Your task to perform on an android device: change your default location settings in chrome Image 0: 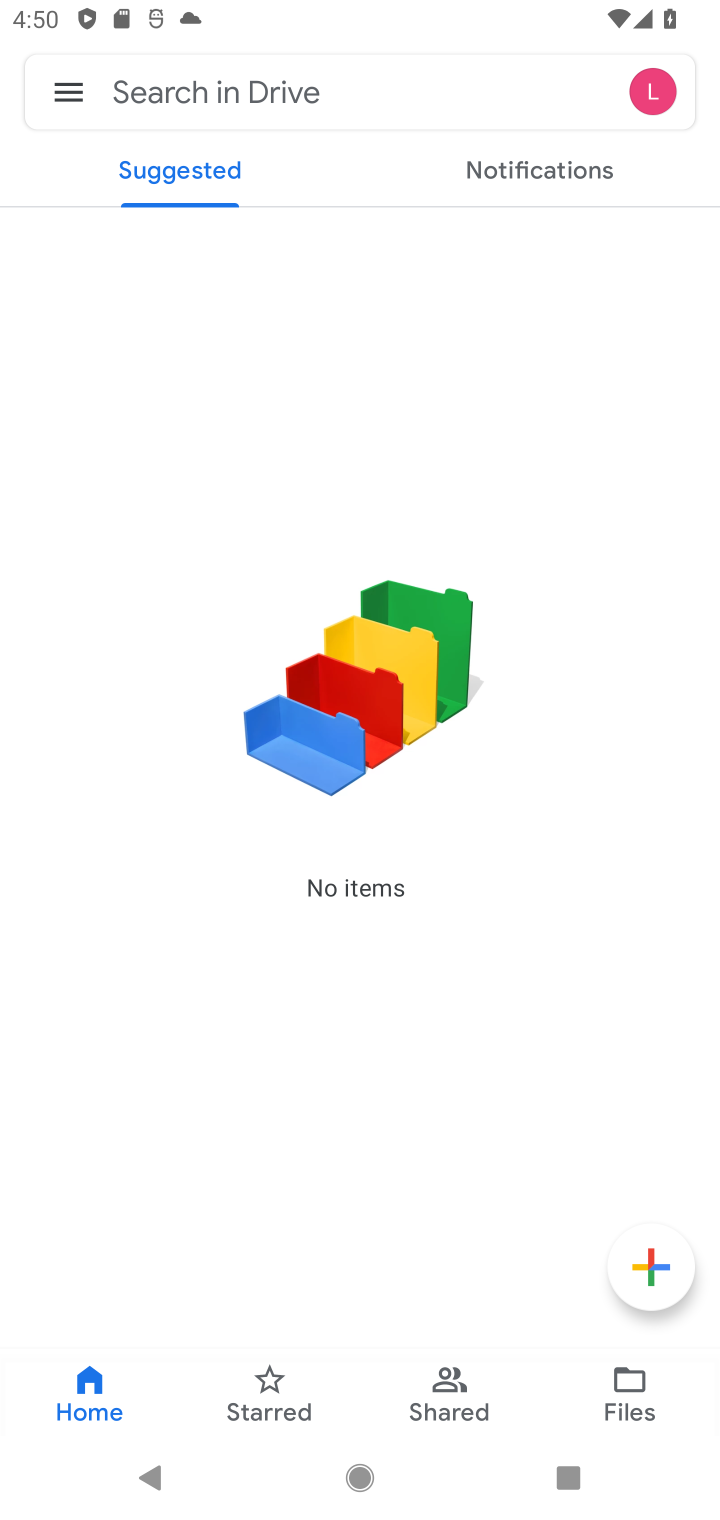
Step 0: press back button
Your task to perform on an android device: change your default location settings in chrome Image 1: 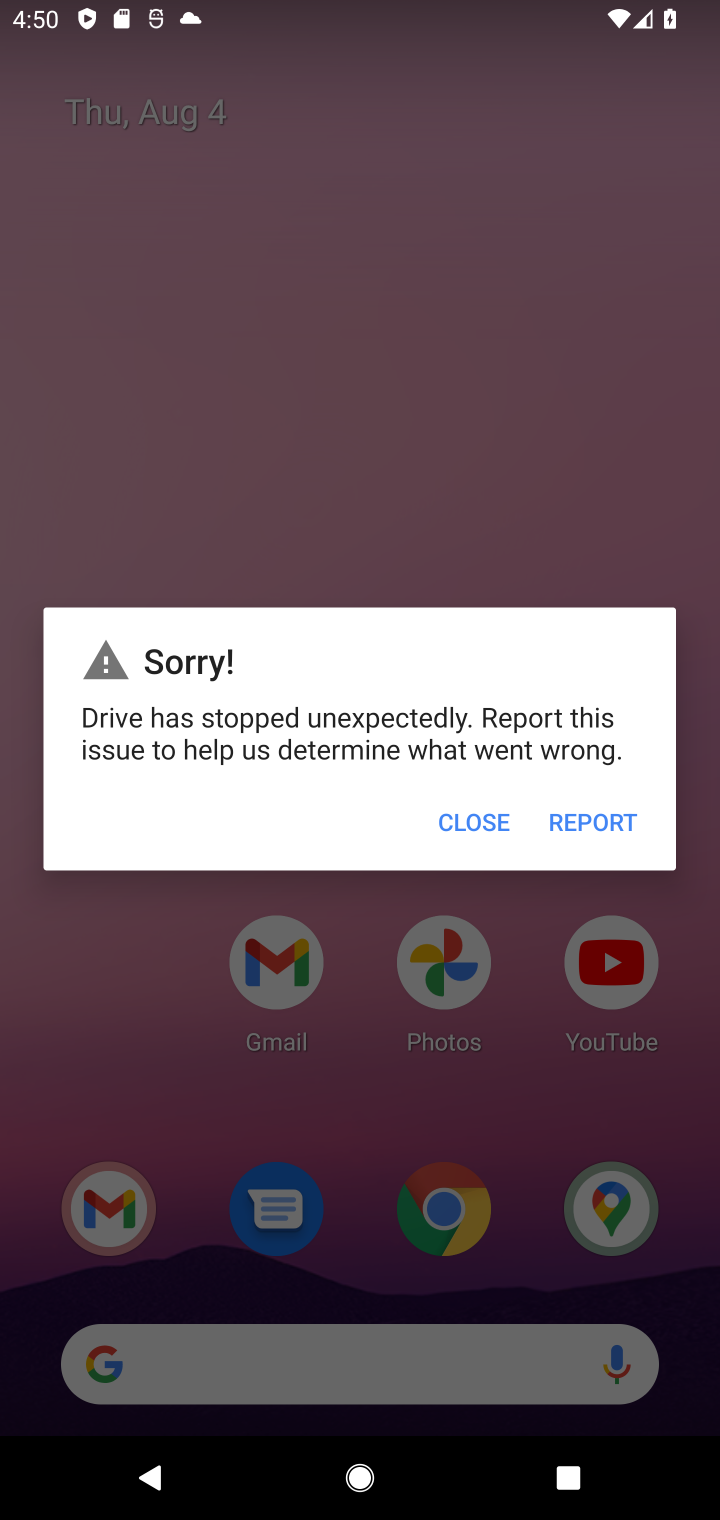
Step 1: press home button
Your task to perform on an android device: change your default location settings in chrome Image 2: 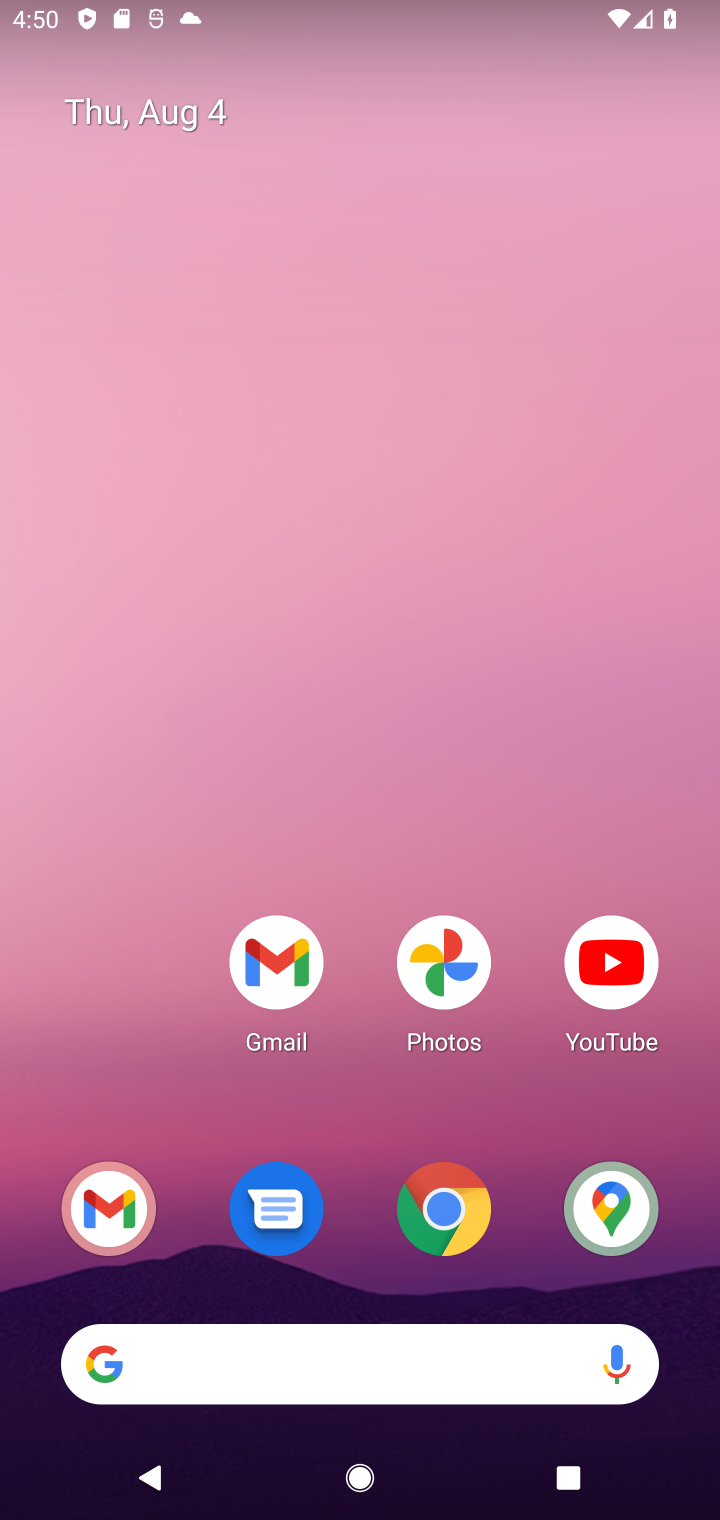
Step 2: click (442, 1209)
Your task to perform on an android device: change your default location settings in chrome Image 3: 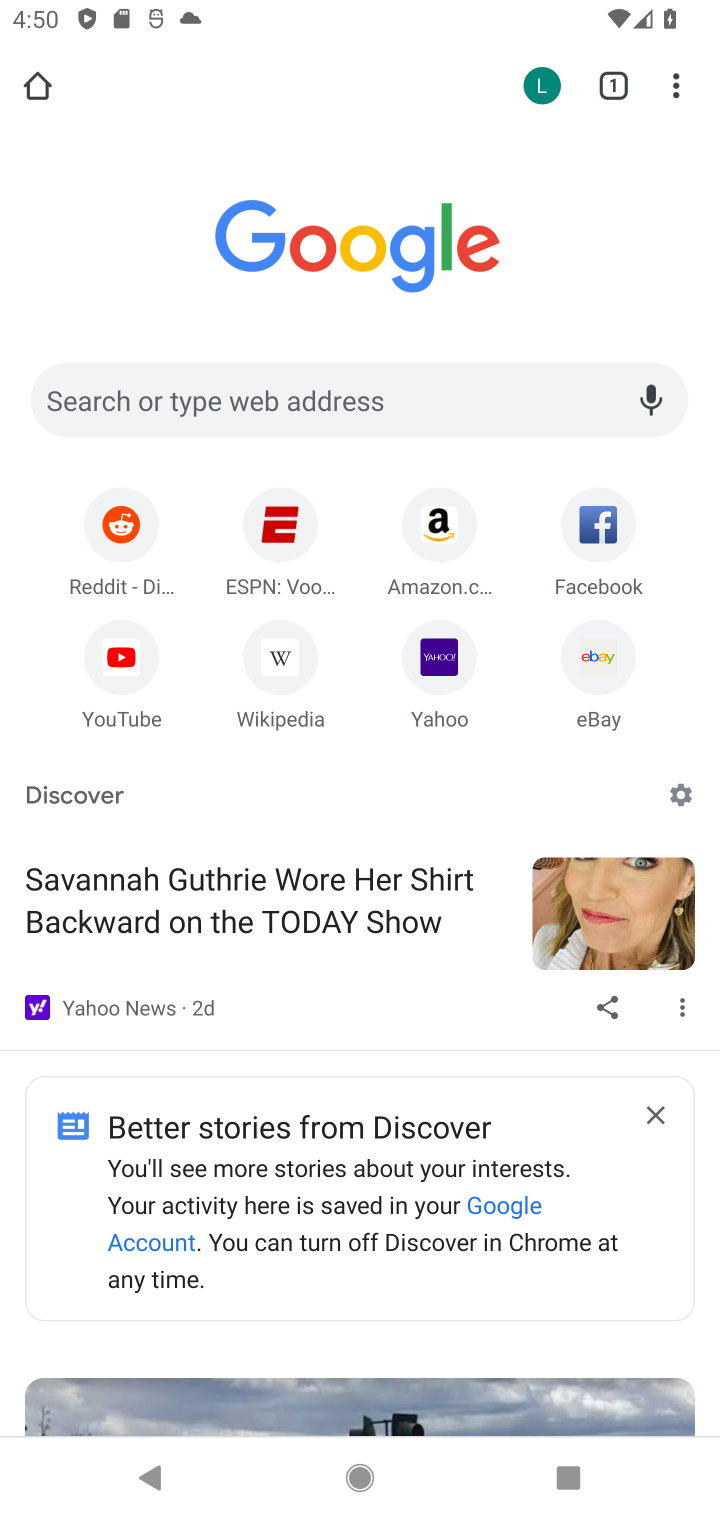
Step 3: click (679, 90)
Your task to perform on an android device: change your default location settings in chrome Image 4: 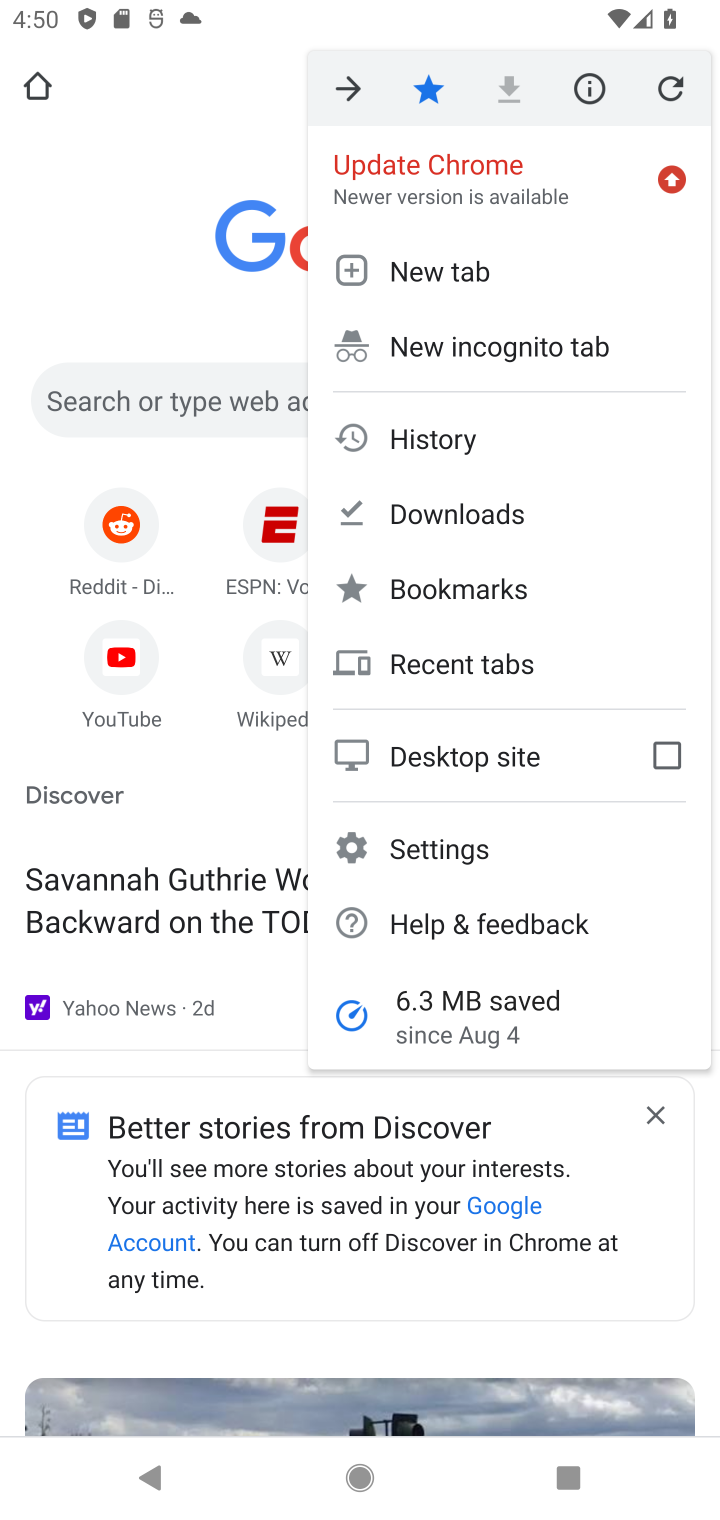
Step 4: click (484, 852)
Your task to perform on an android device: change your default location settings in chrome Image 5: 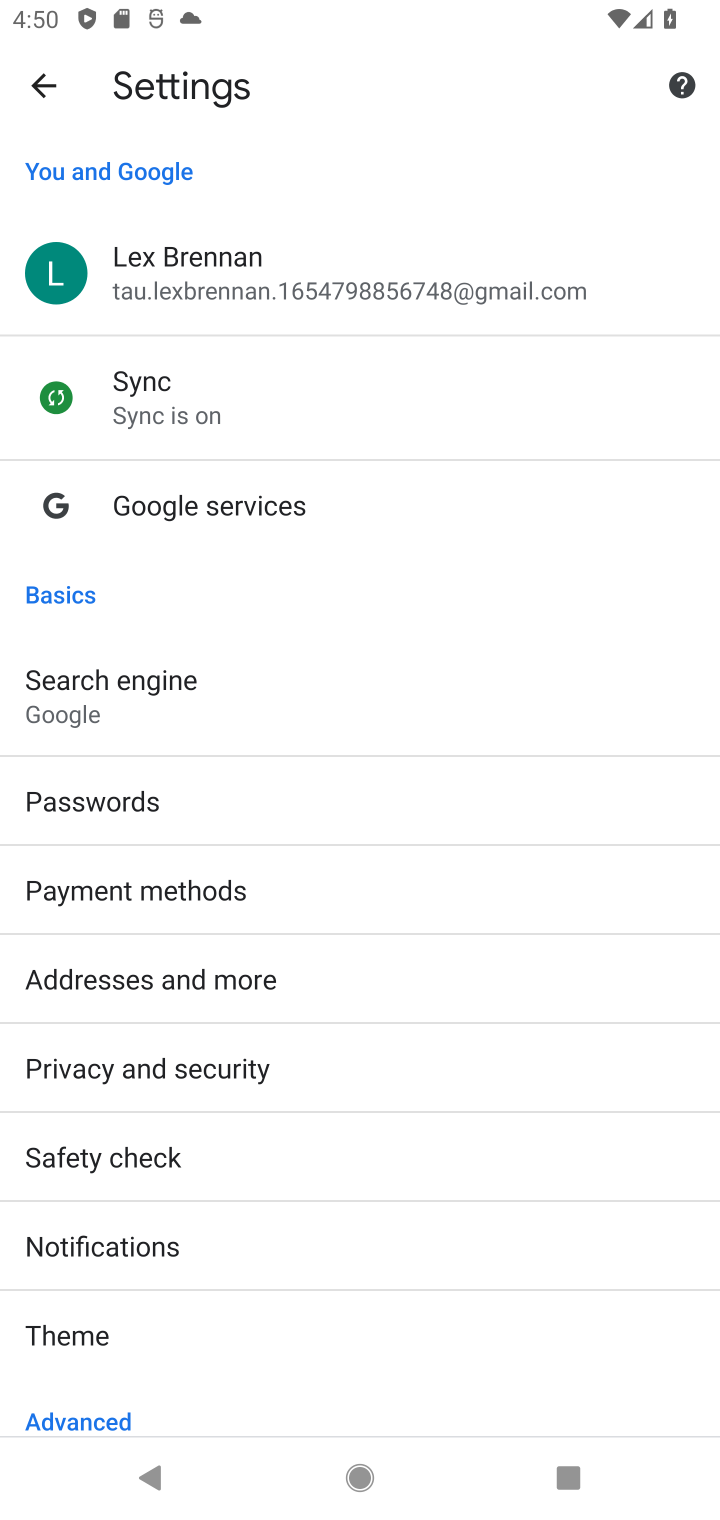
Step 5: drag from (187, 1011) to (254, 497)
Your task to perform on an android device: change your default location settings in chrome Image 6: 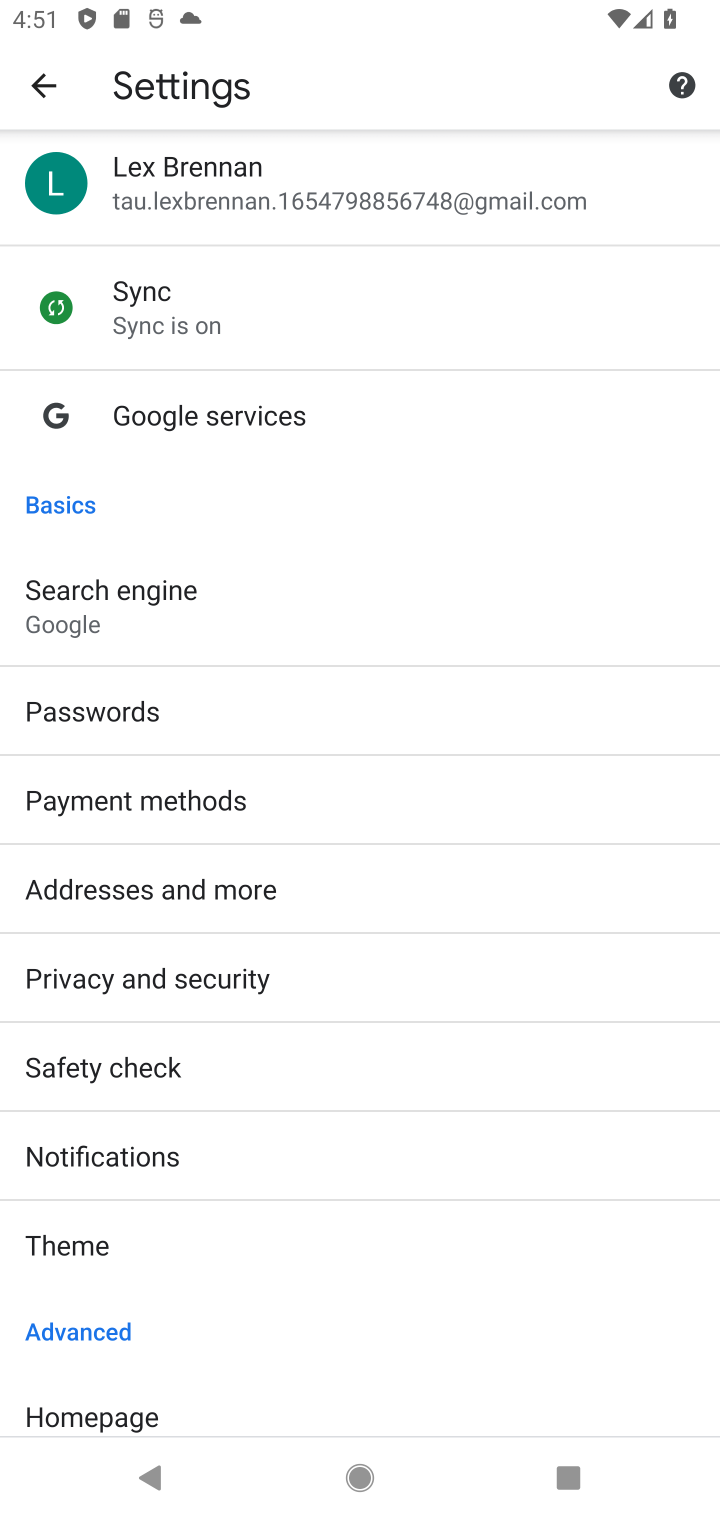
Step 6: drag from (256, 926) to (358, 279)
Your task to perform on an android device: change your default location settings in chrome Image 7: 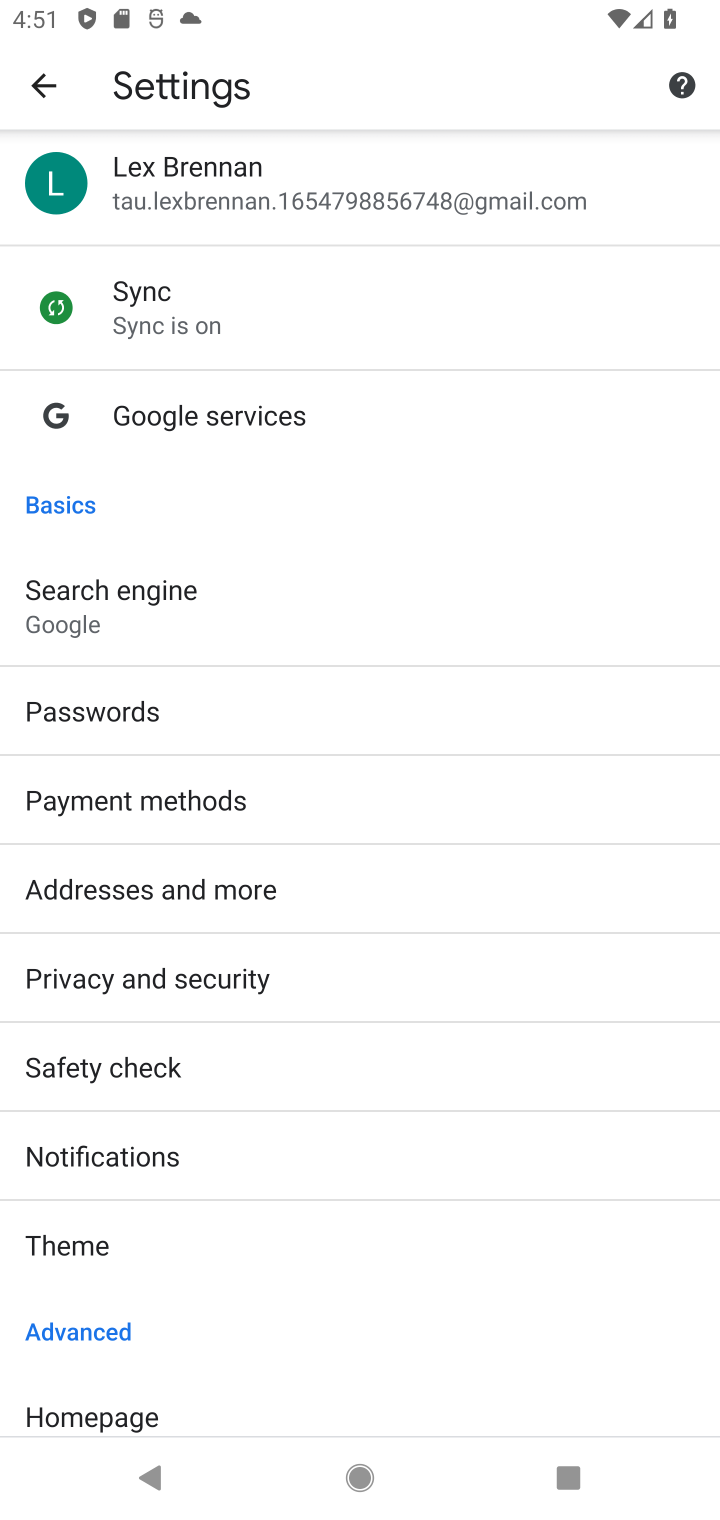
Step 7: drag from (183, 1229) to (217, 703)
Your task to perform on an android device: change your default location settings in chrome Image 8: 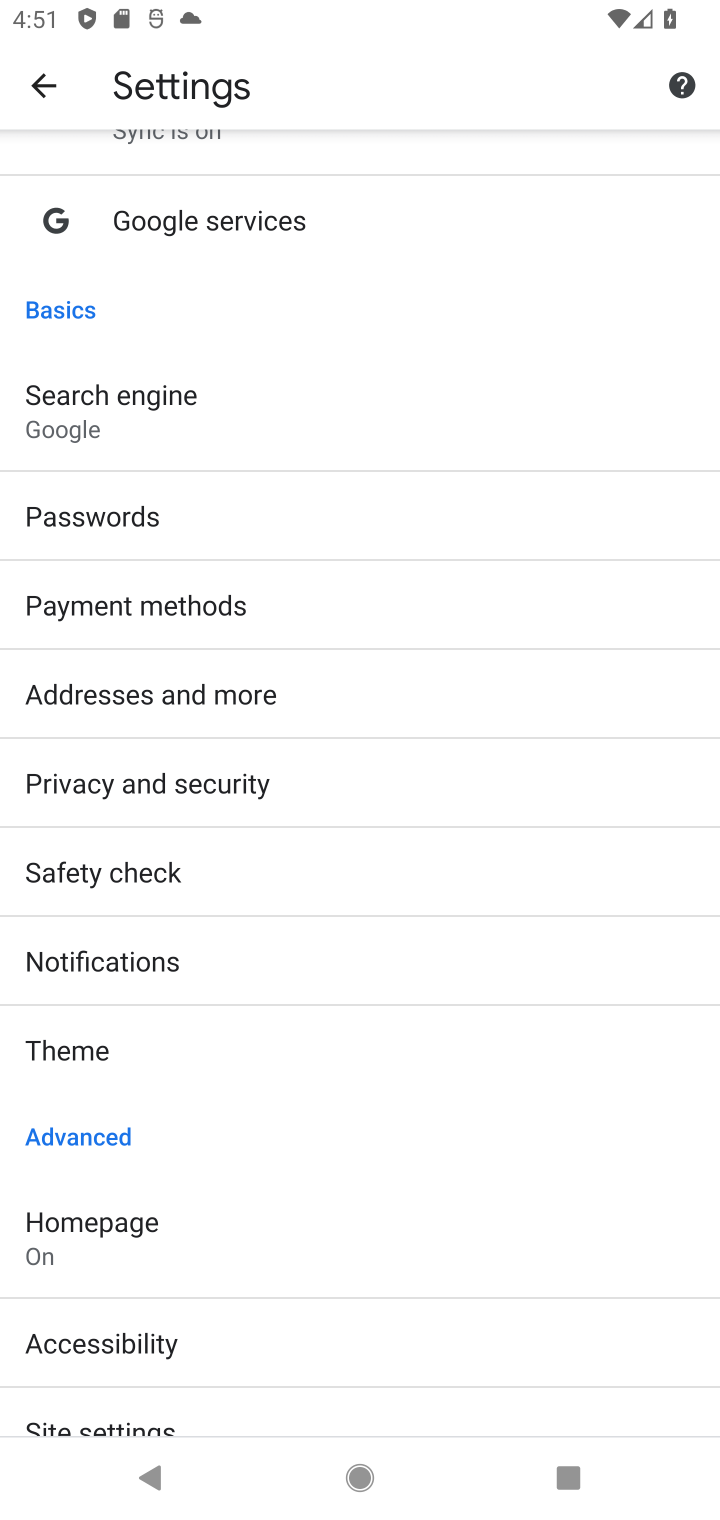
Step 8: click (154, 1431)
Your task to perform on an android device: change your default location settings in chrome Image 9: 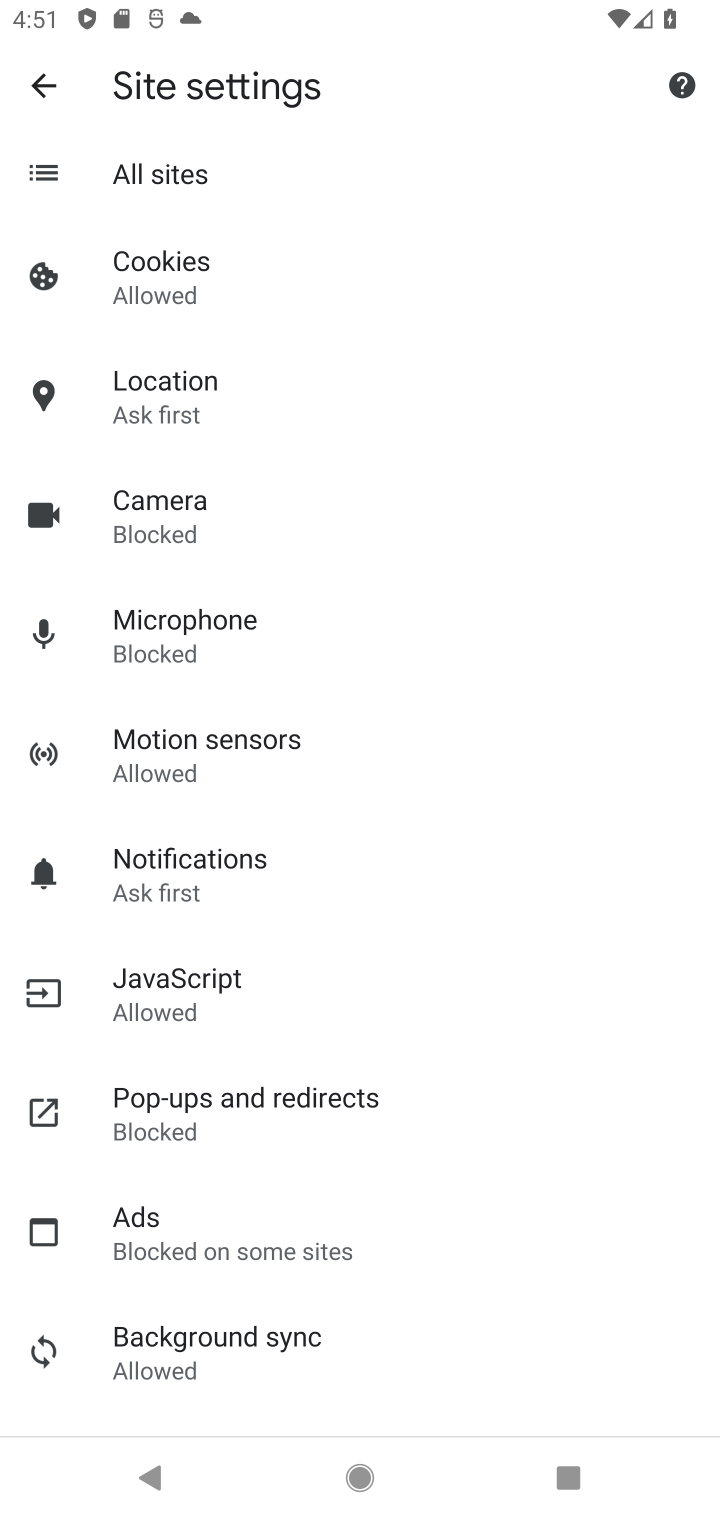
Step 9: click (192, 412)
Your task to perform on an android device: change your default location settings in chrome Image 10: 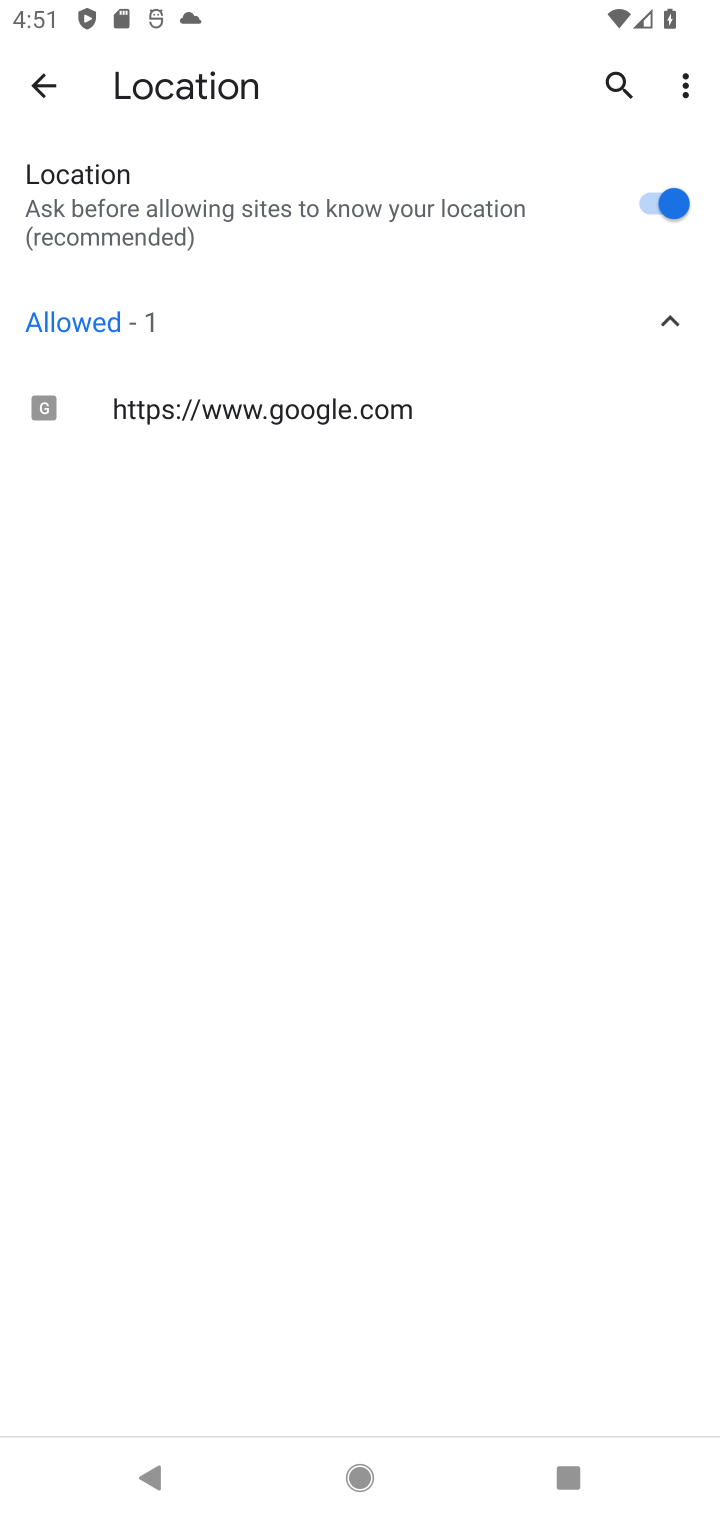
Step 10: click (655, 214)
Your task to perform on an android device: change your default location settings in chrome Image 11: 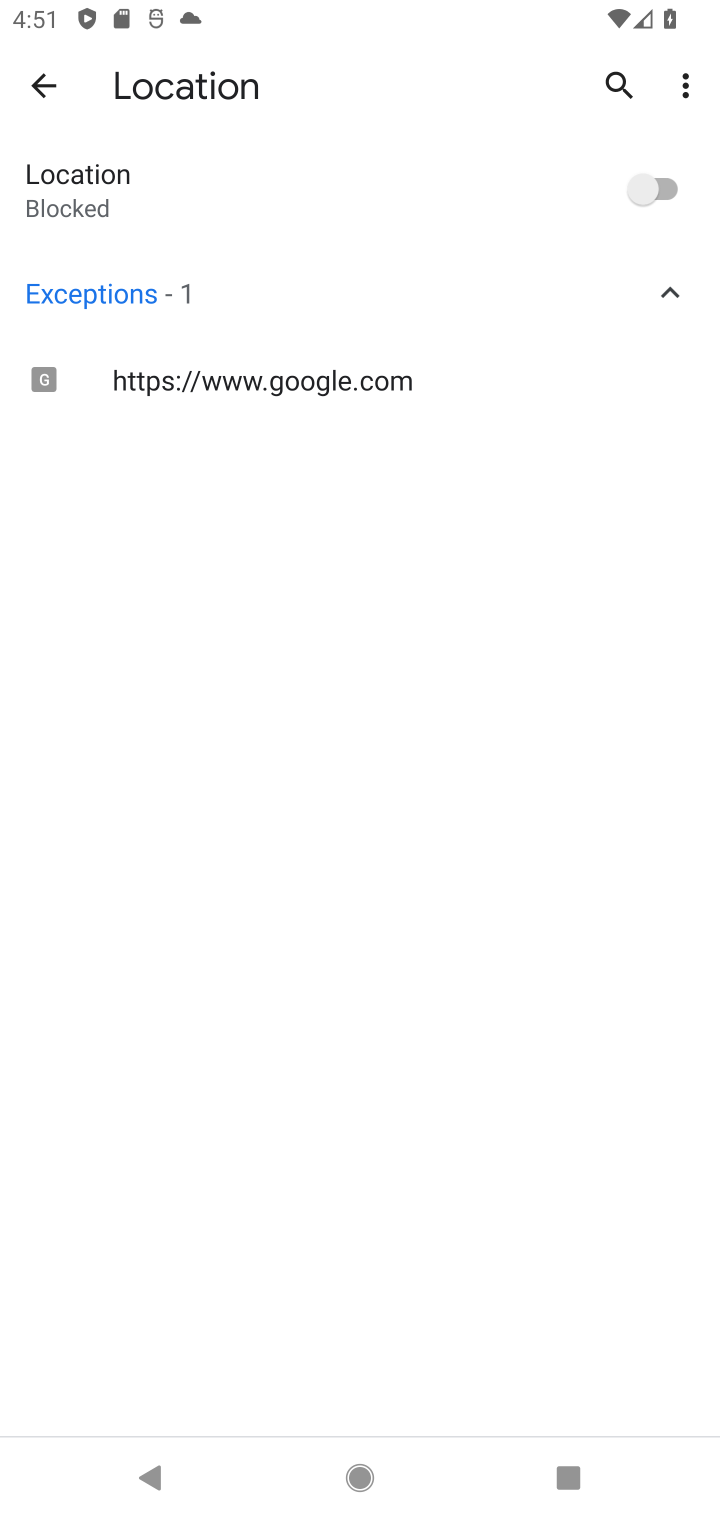
Step 11: task complete